Your task to perform on an android device: find photos in the google photos app Image 0: 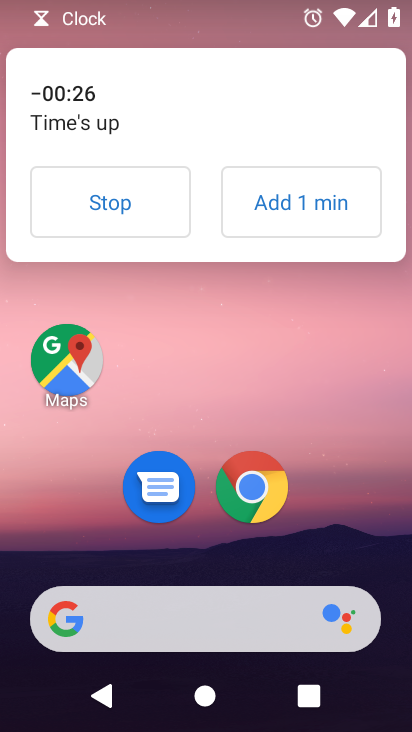
Step 0: drag from (247, 453) to (233, 122)
Your task to perform on an android device: find photos in the google photos app Image 1: 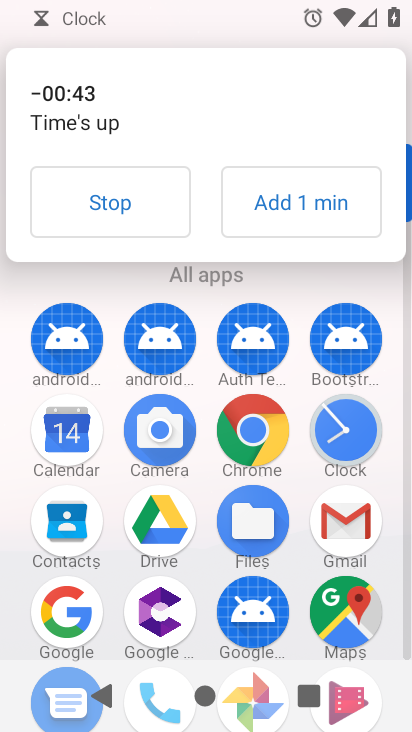
Step 1: click (154, 221)
Your task to perform on an android device: find photos in the google photos app Image 2: 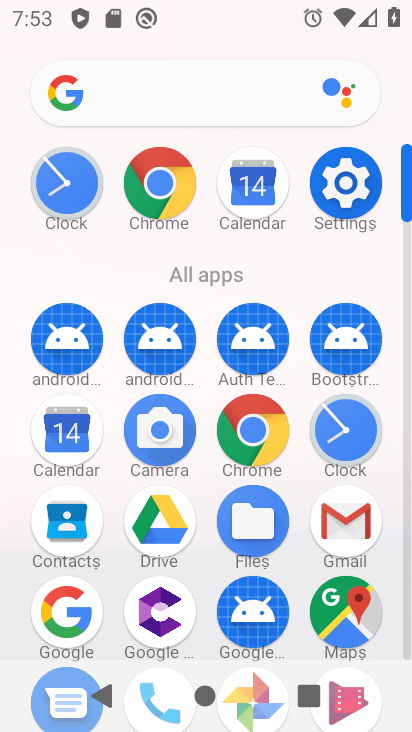
Step 2: drag from (227, 521) to (247, 282)
Your task to perform on an android device: find photos in the google photos app Image 3: 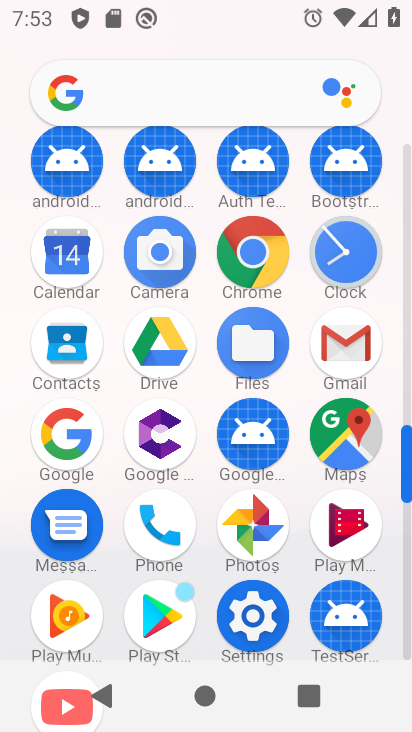
Step 3: click (271, 547)
Your task to perform on an android device: find photos in the google photos app Image 4: 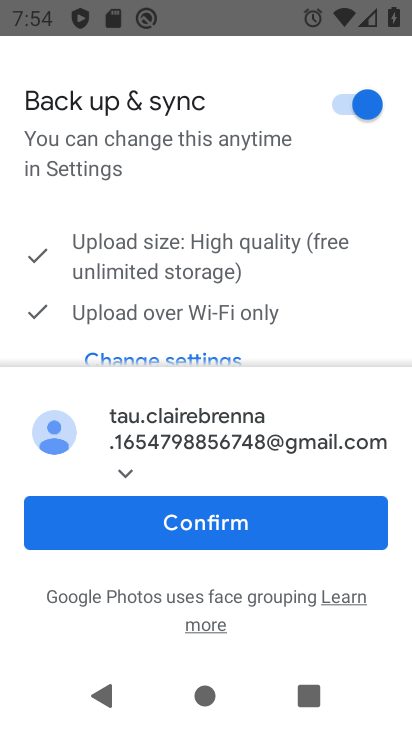
Step 4: click (267, 525)
Your task to perform on an android device: find photos in the google photos app Image 5: 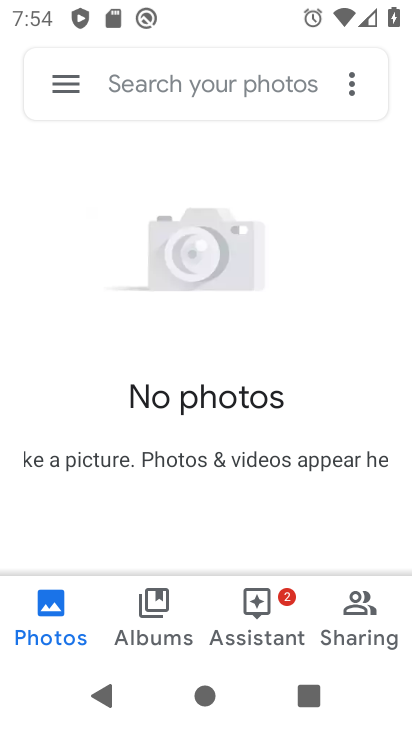
Step 5: task complete